Your task to perform on an android device: find photos in the google photos app Image 0: 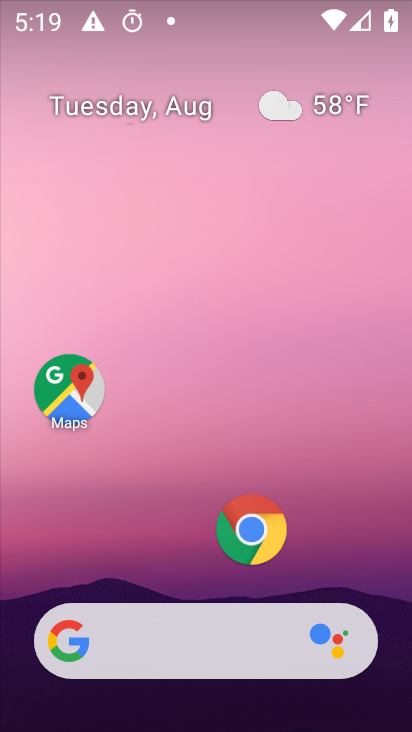
Step 0: drag from (183, 551) to (237, 186)
Your task to perform on an android device: find photos in the google photos app Image 1: 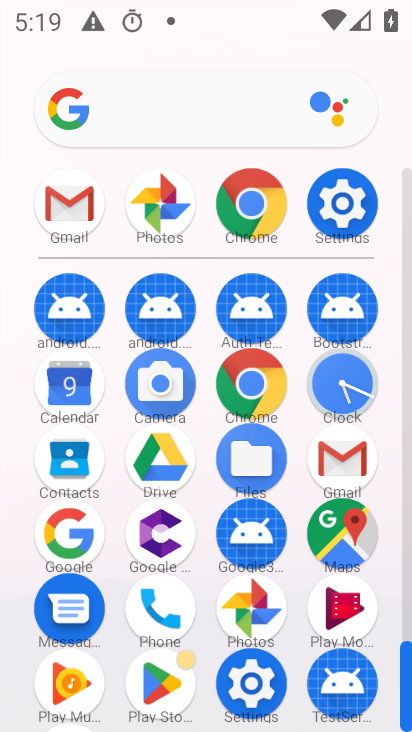
Step 1: click (159, 211)
Your task to perform on an android device: find photos in the google photos app Image 2: 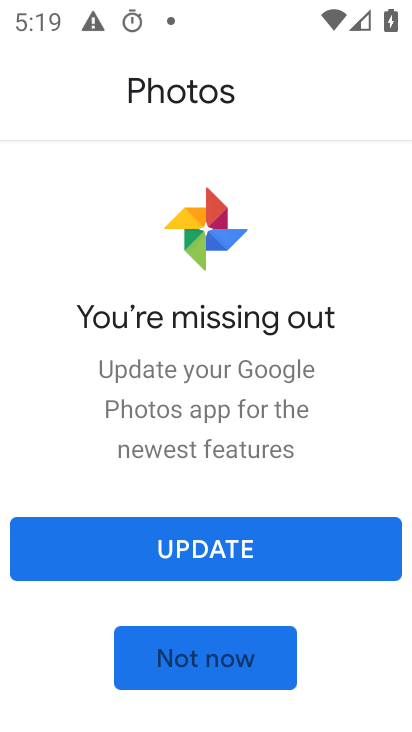
Step 2: click (179, 639)
Your task to perform on an android device: find photos in the google photos app Image 3: 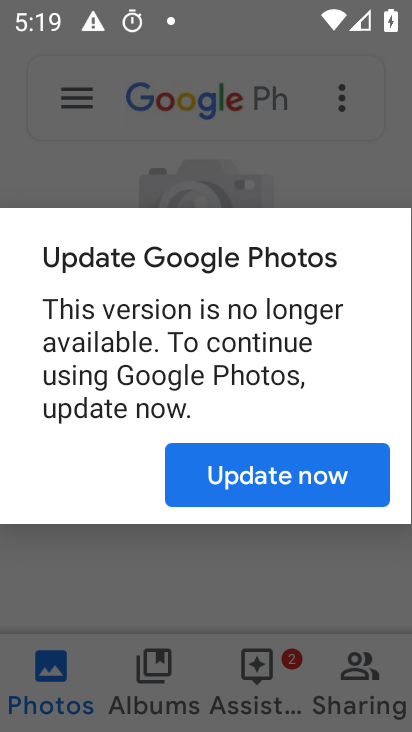
Step 3: click (244, 484)
Your task to perform on an android device: find photos in the google photos app Image 4: 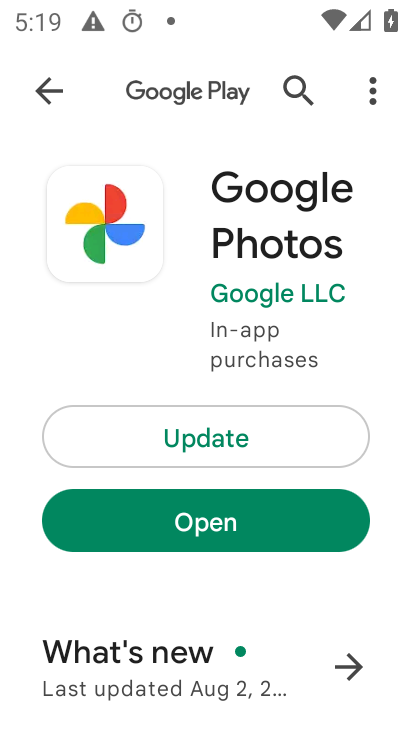
Step 4: click (322, 538)
Your task to perform on an android device: find photos in the google photos app Image 5: 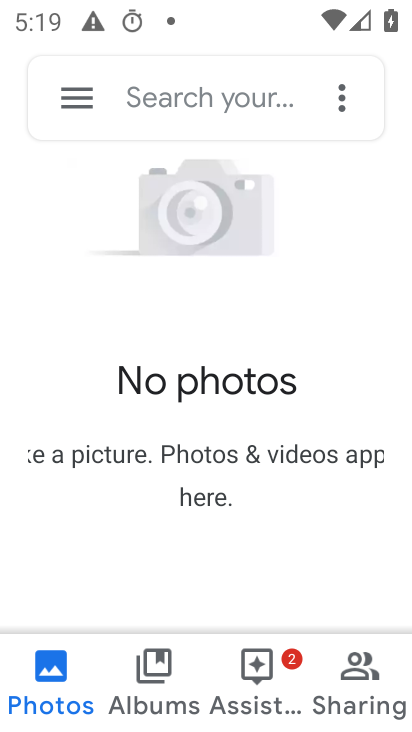
Step 5: click (192, 109)
Your task to perform on an android device: find photos in the google photos app Image 6: 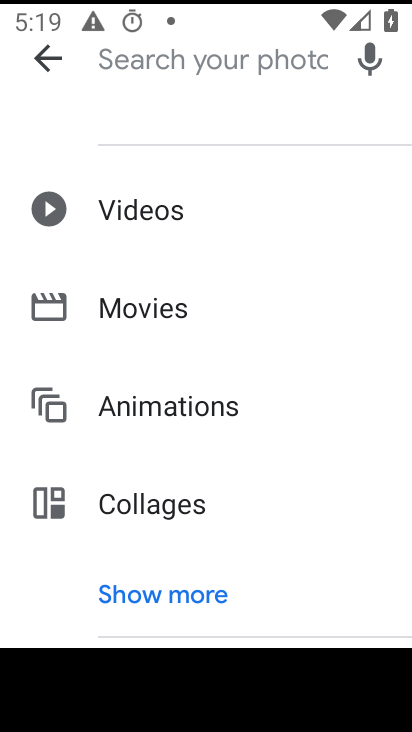
Step 6: type "aaa"
Your task to perform on an android device: find photos in the google photos app Image 7: 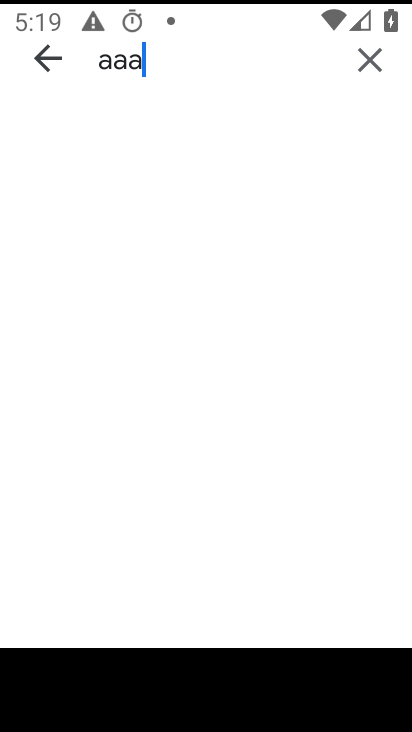
Step 7: task complete